Your task to perform on an android device: Open Google Chrome and open the bookmarks view Image 0: 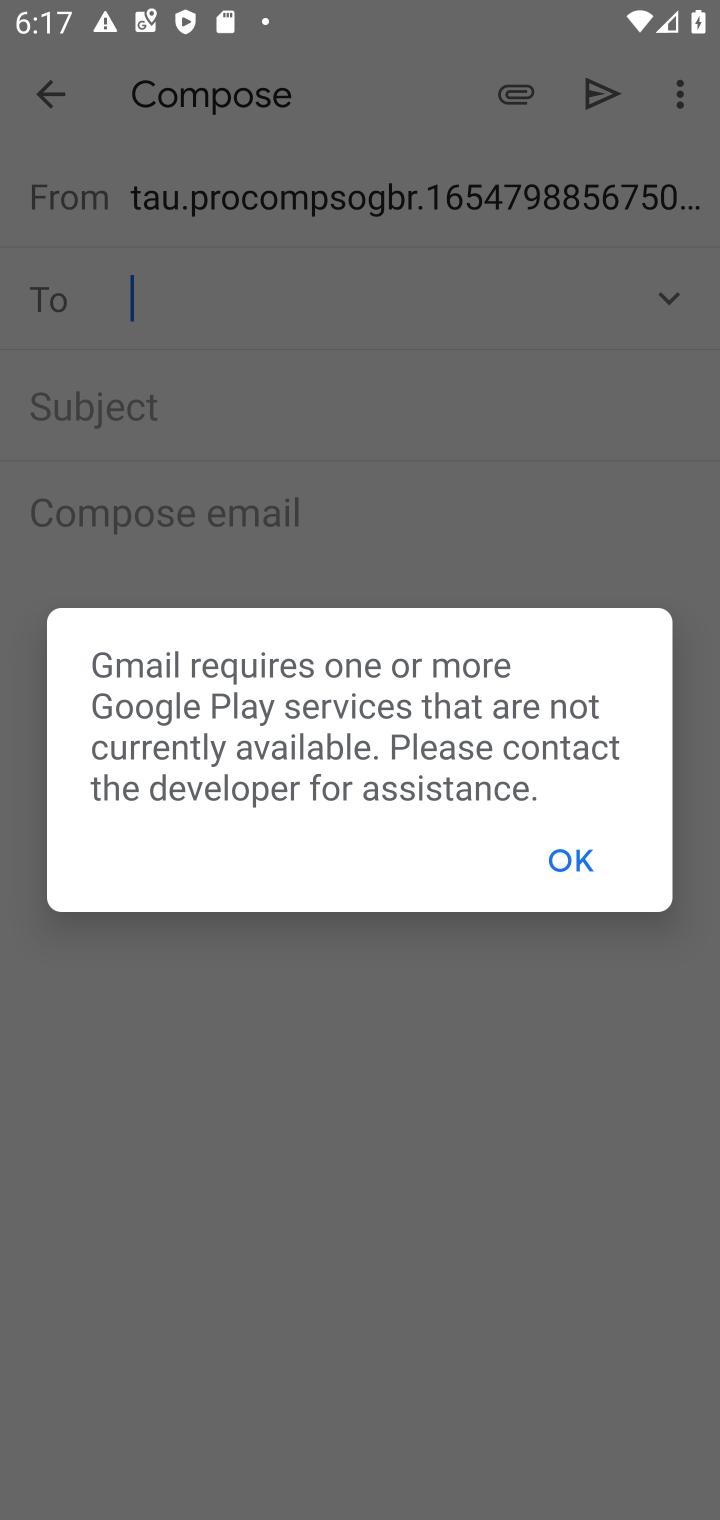
Step 0: click (569, 837)
Your task to perform on an android device: Open Google Chrome and open the bookmarks view Image 1: 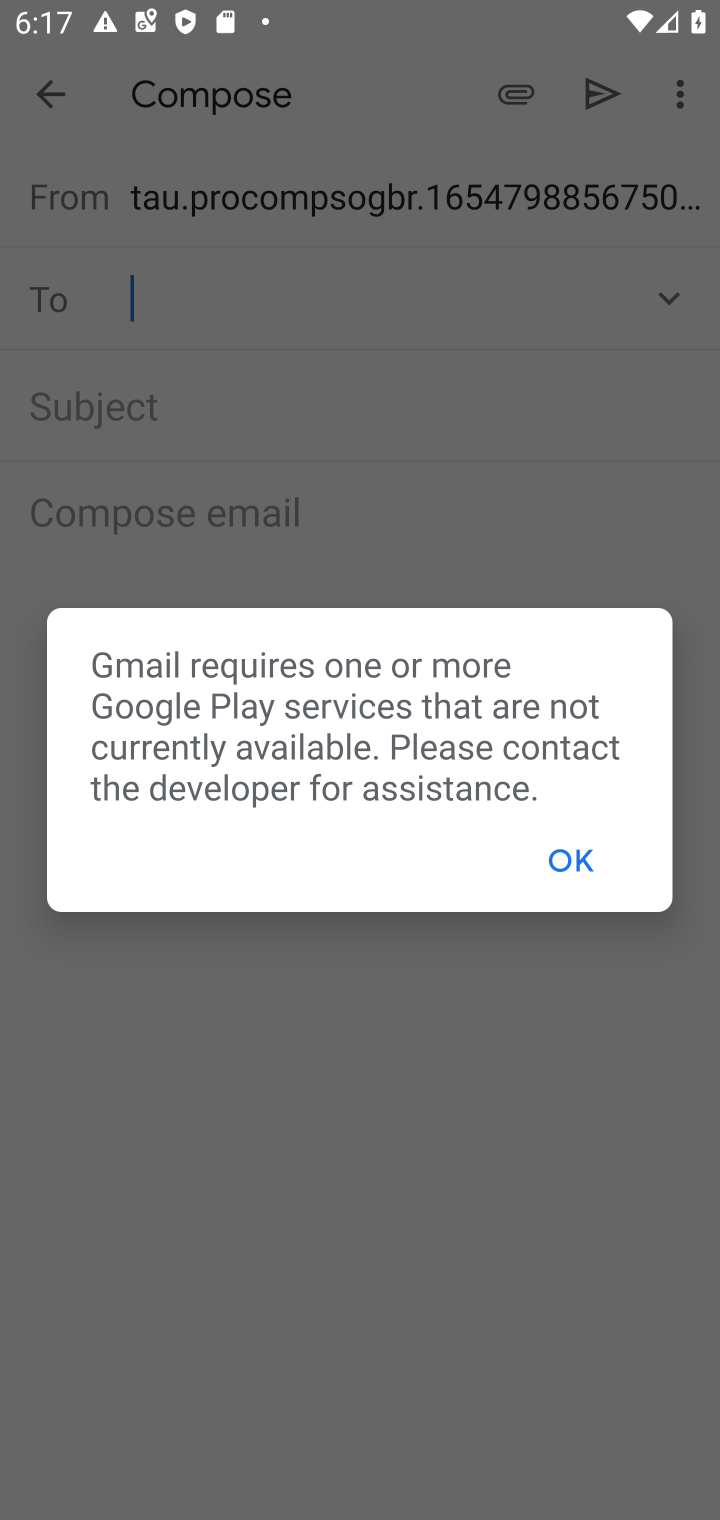
Step 1: click (567, 850)
Your task to perform on an android device: Open Google Chrome and open the bookmarks view Image 2: 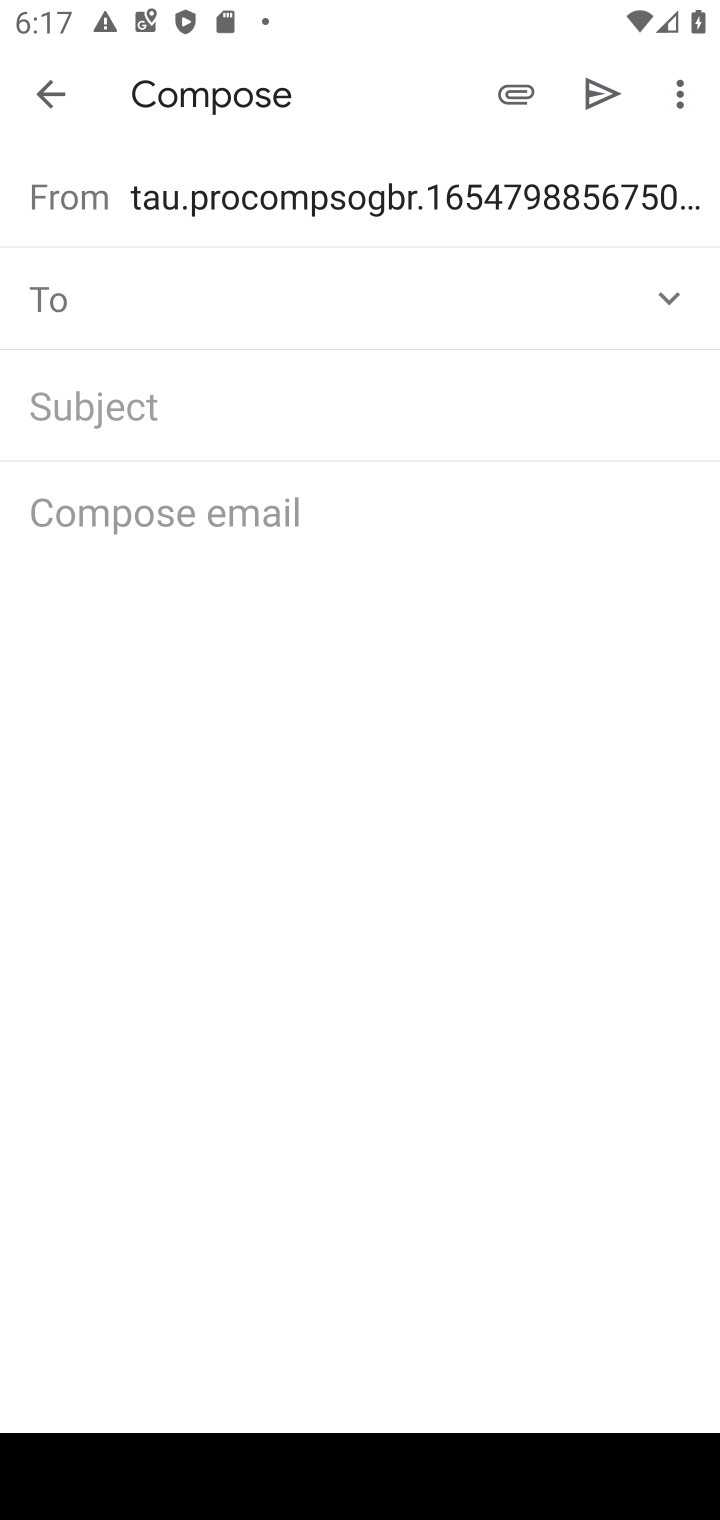
Step 2: task complete